Your task to perform on an android device: turn on showing notifications on the lock screen Image 0: 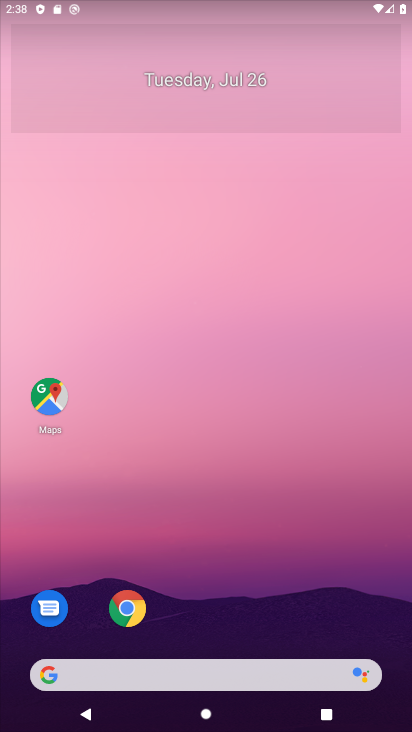
Step 0: drag from (312, 569) to (342, 71)
Your task to perform on an android device: turn on showing notifications on the lock screen Image 1: 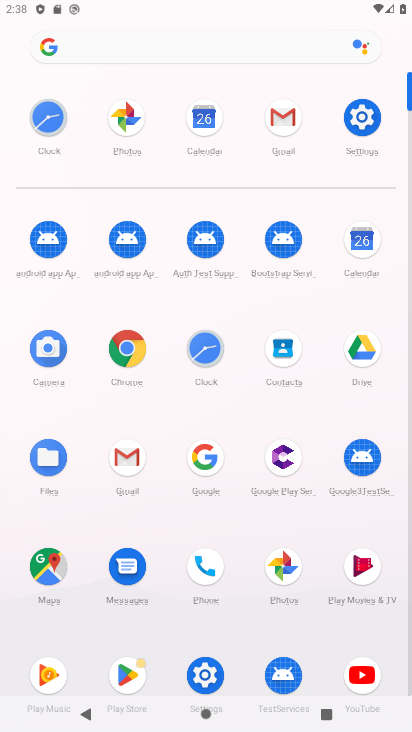
Step 1: click (362, 134)
Your task to perform on an android device: turn on showing notifications on the lock screen Image 2: 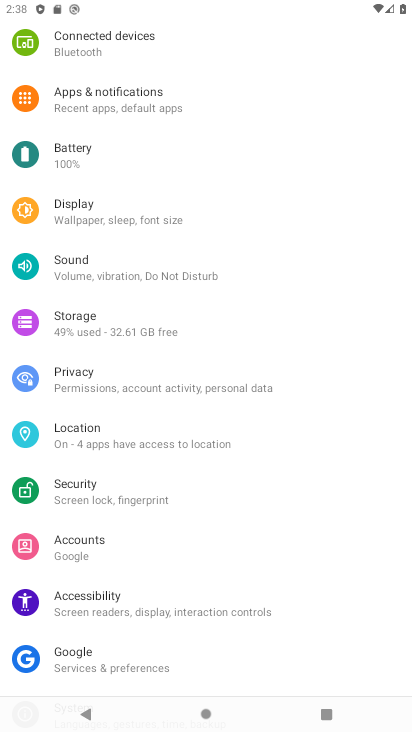
Step 2: click (139, 106)
Your task to perform on an android device: turn on showing notifications on the lock screen Image 3: 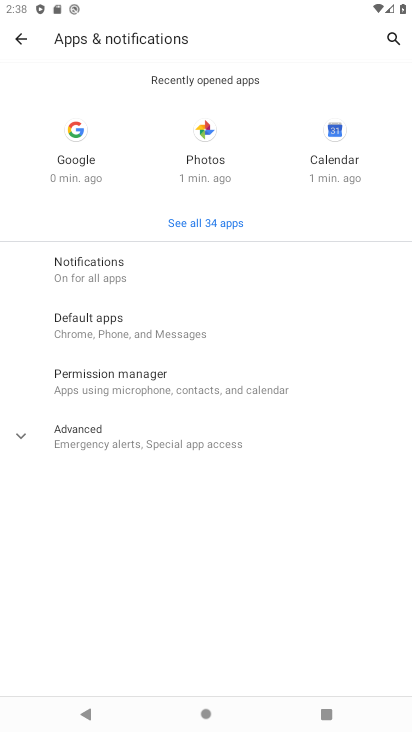
Step 3: task complete